Your task to perform on an android device: change text size in settings app Image 0: 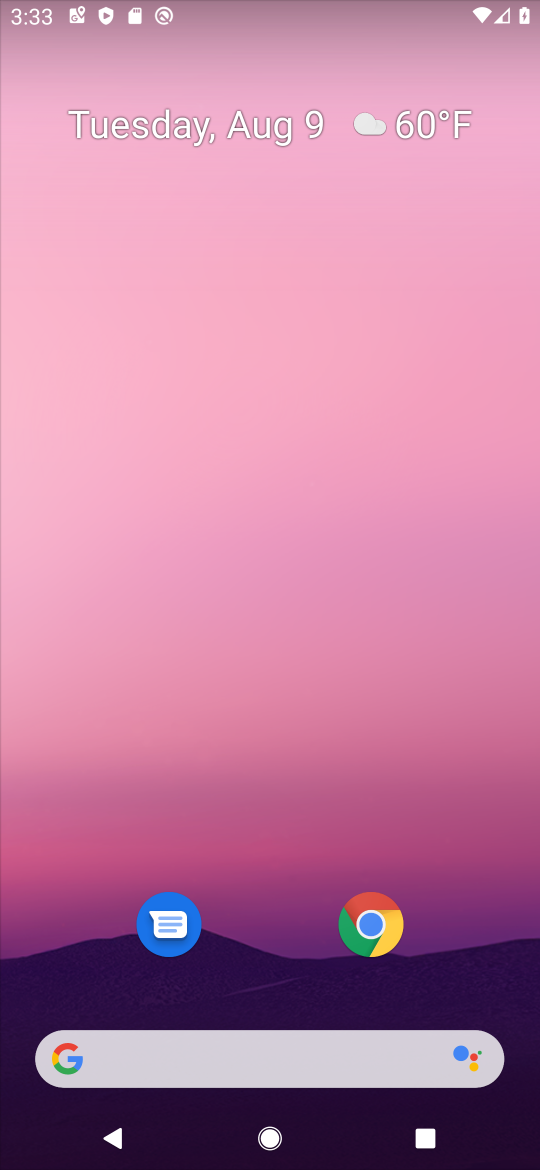
Step 0: drag from (265, 881) to (367, 10)
Your task to perform on an android device: change text size in settings app Image 1: 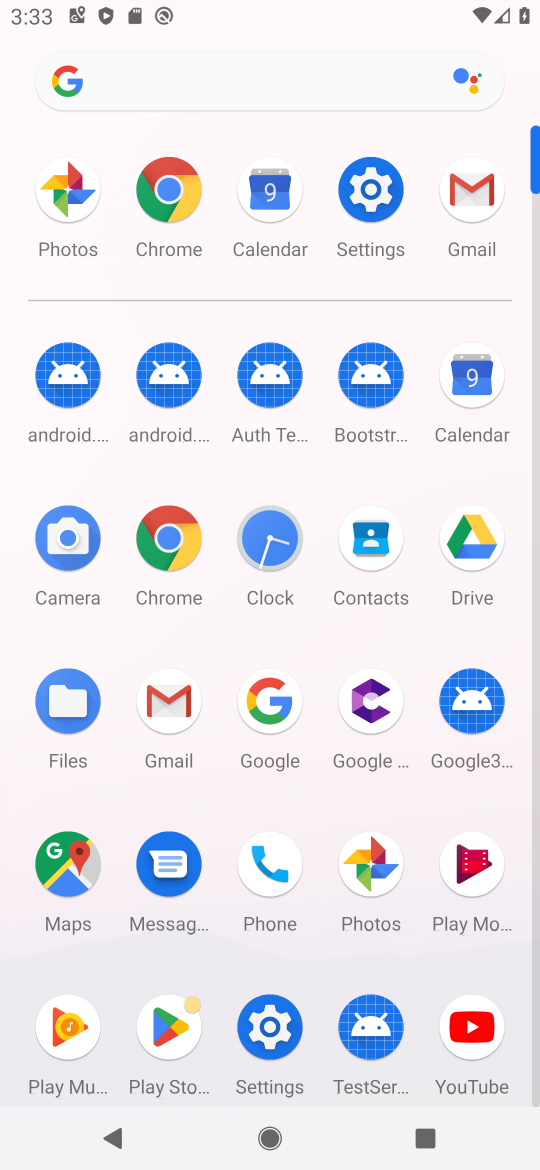
Step 1: click (376, 179)
Your task to perform on an android device: change text size in settings app Image 2: 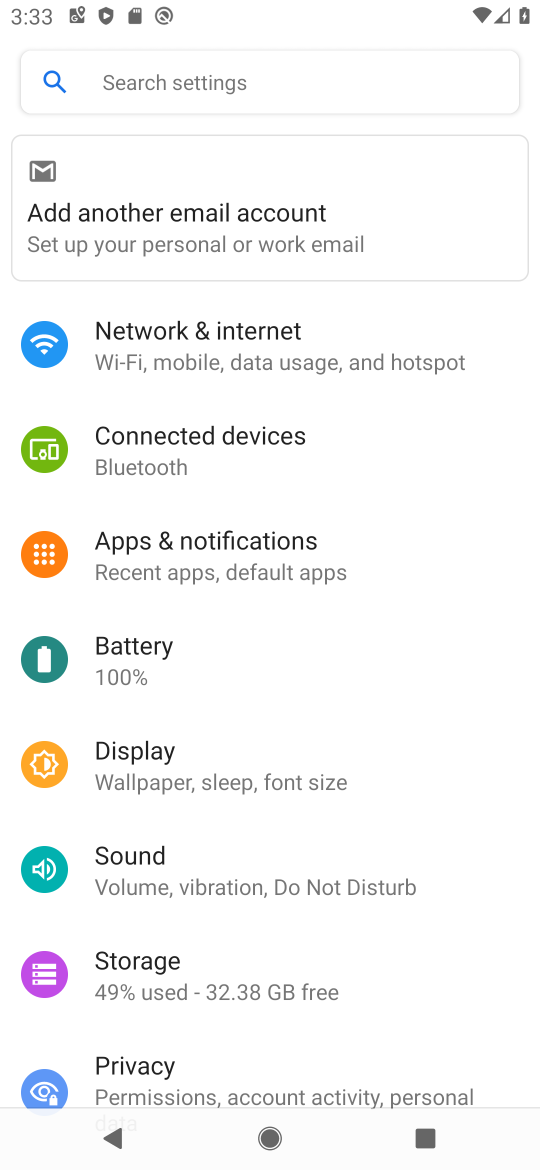
Step 2: click (245, 762)
Your task to perform on an android device: change text size in settings app Image 3: 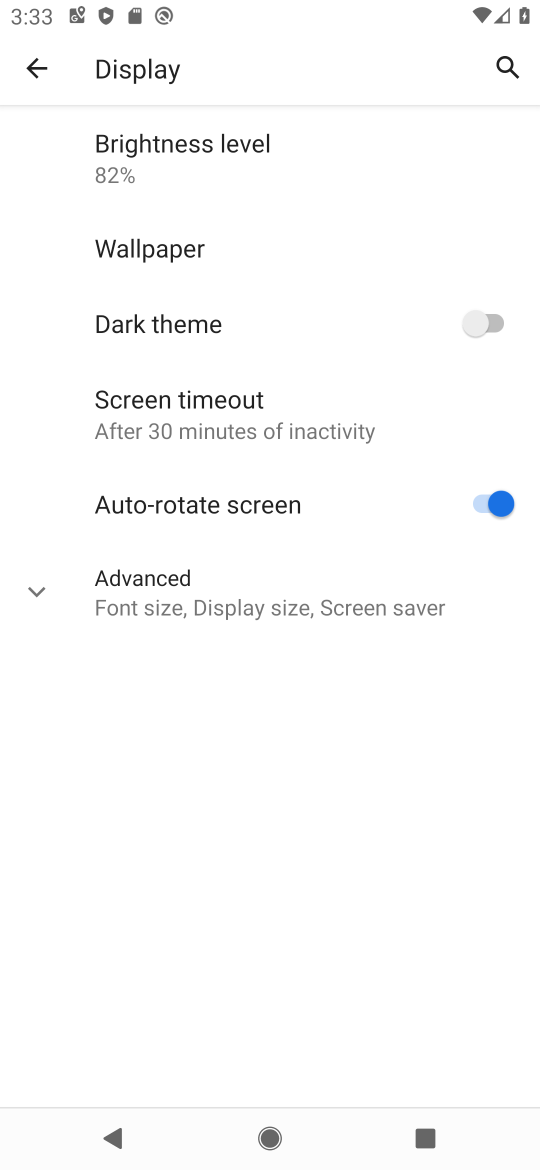
Step 3: click (38, 586)
Your task to perform on an android device: change text size in settings app Image 4: 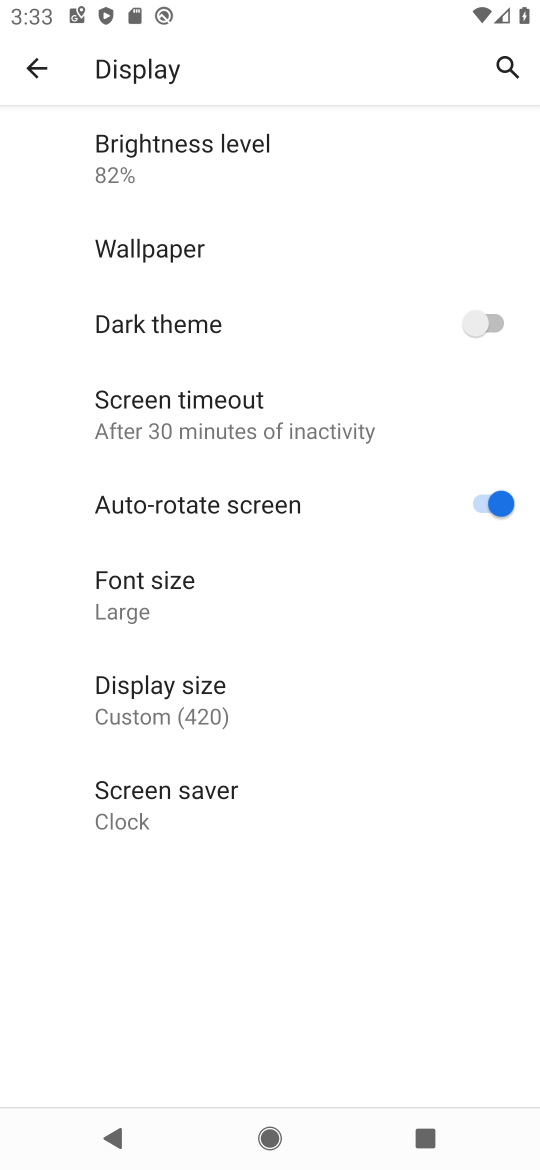
Step 4: click (140, 588)
Your task to perform on an android device: change text size in settings app Image 5: 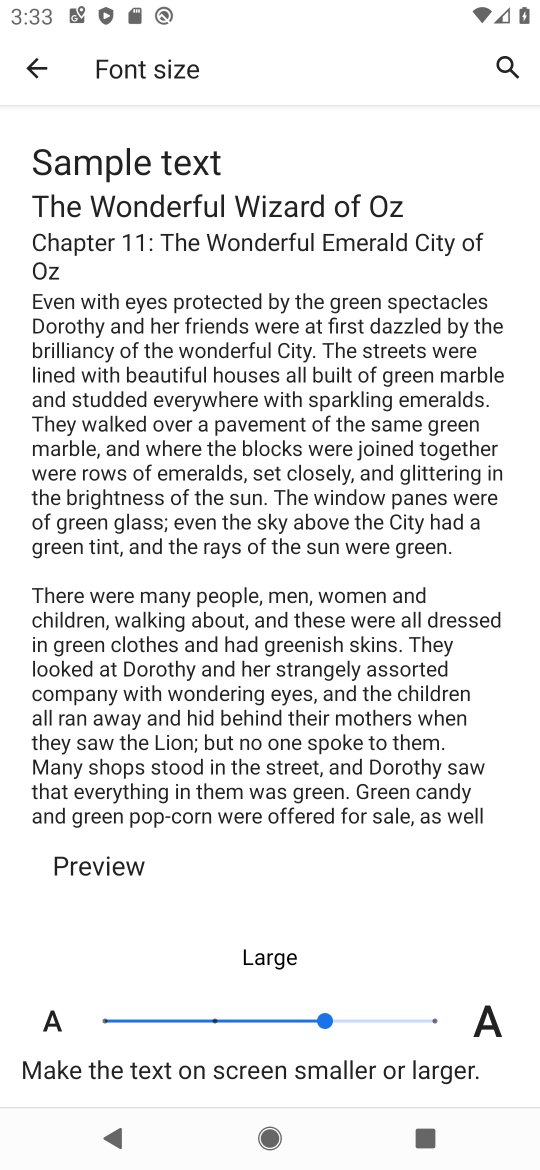
Step 5: click (207, 1020)
Your task to perform on an android device: change text size in settings app Image 6: 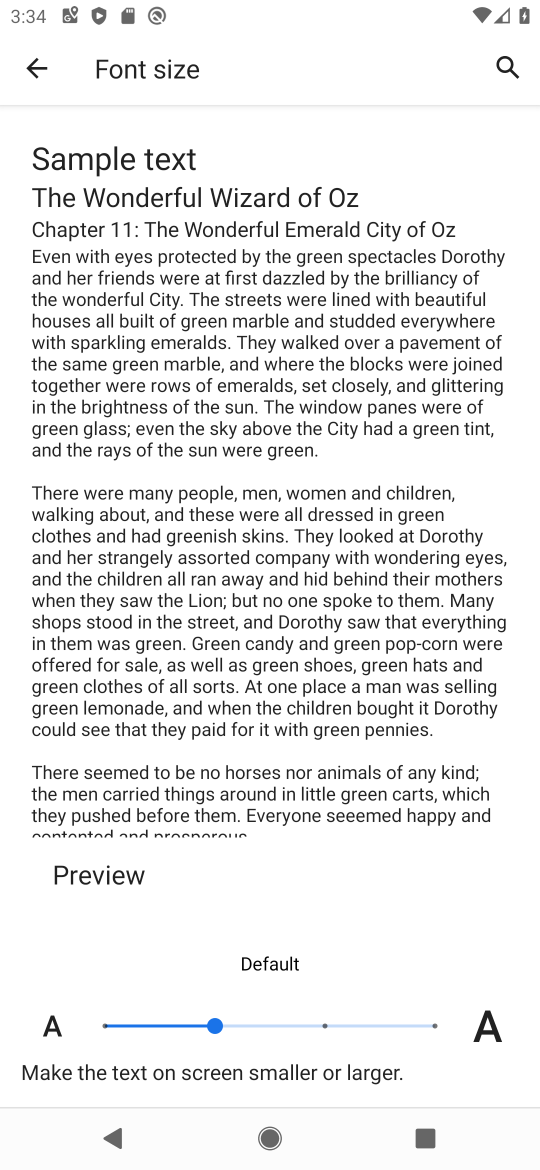
Step 6: task complete